Your task to perform on an android device: Open Google Maps Image 0: 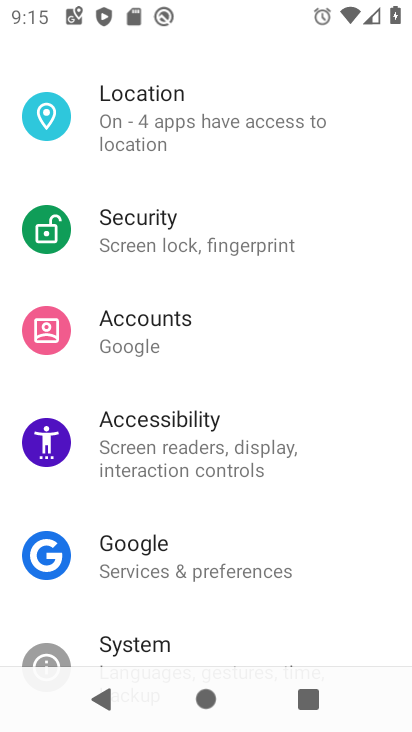
Step 0: press home button
Your task to perform on an android device: Open Google Maps Image 1: 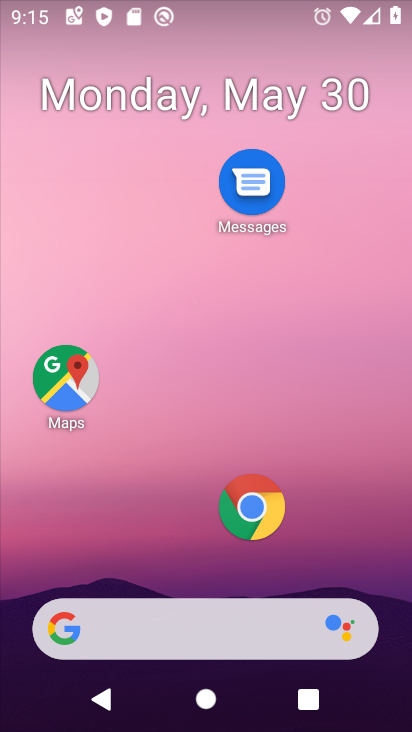
Step 1: click (177, 539)
Your task to perform on an android device: Open Google Maps Image 2: 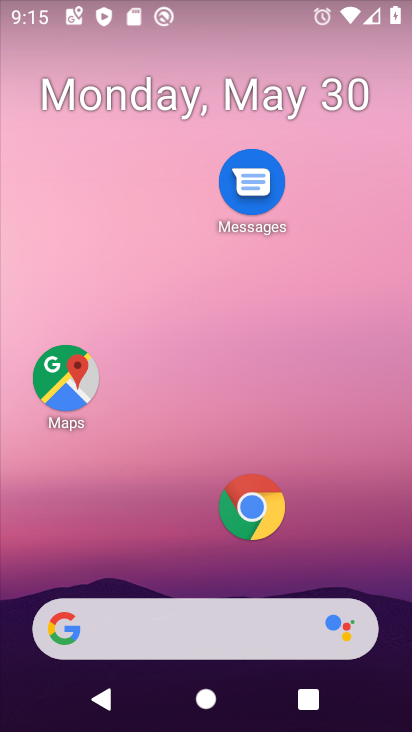
Step 2: click (59, 398)
Your task to perform on an android device: Open Google Maps Image 3: 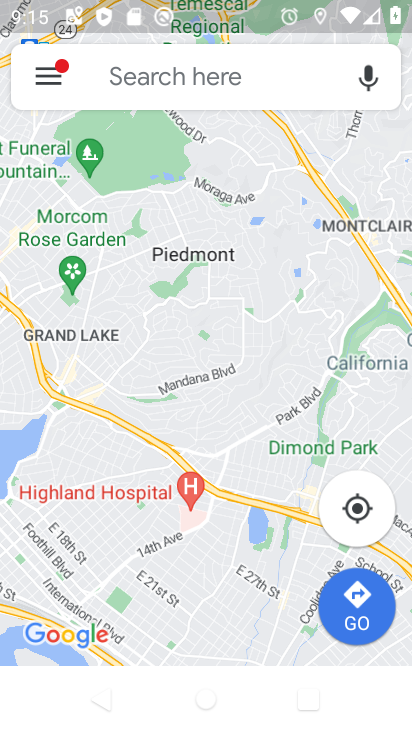
Step 3: task complete